Your task to perform on an android device: create a new album in the google photos Image 0: 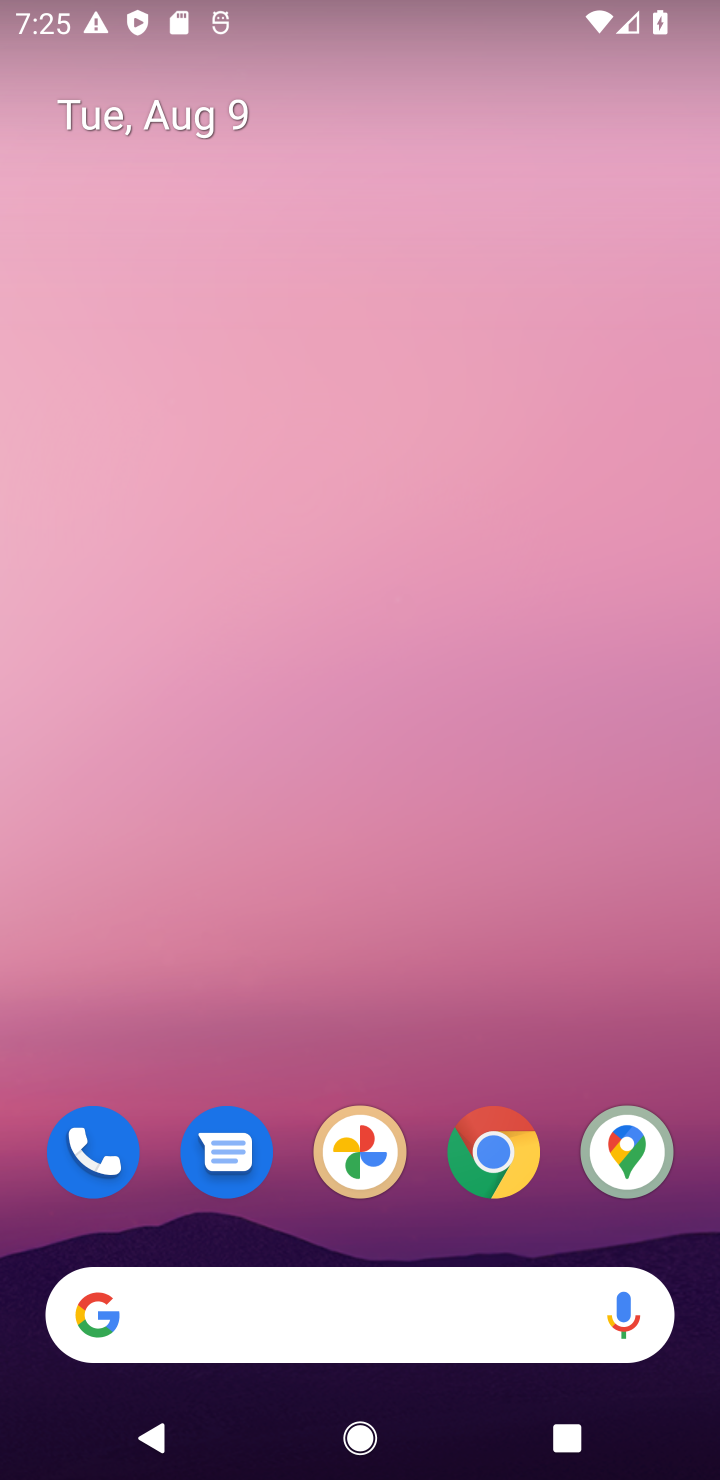
Step 0: click (391, 1178)
Your task to perform on an android device: create a new album in the google photos Image 1: 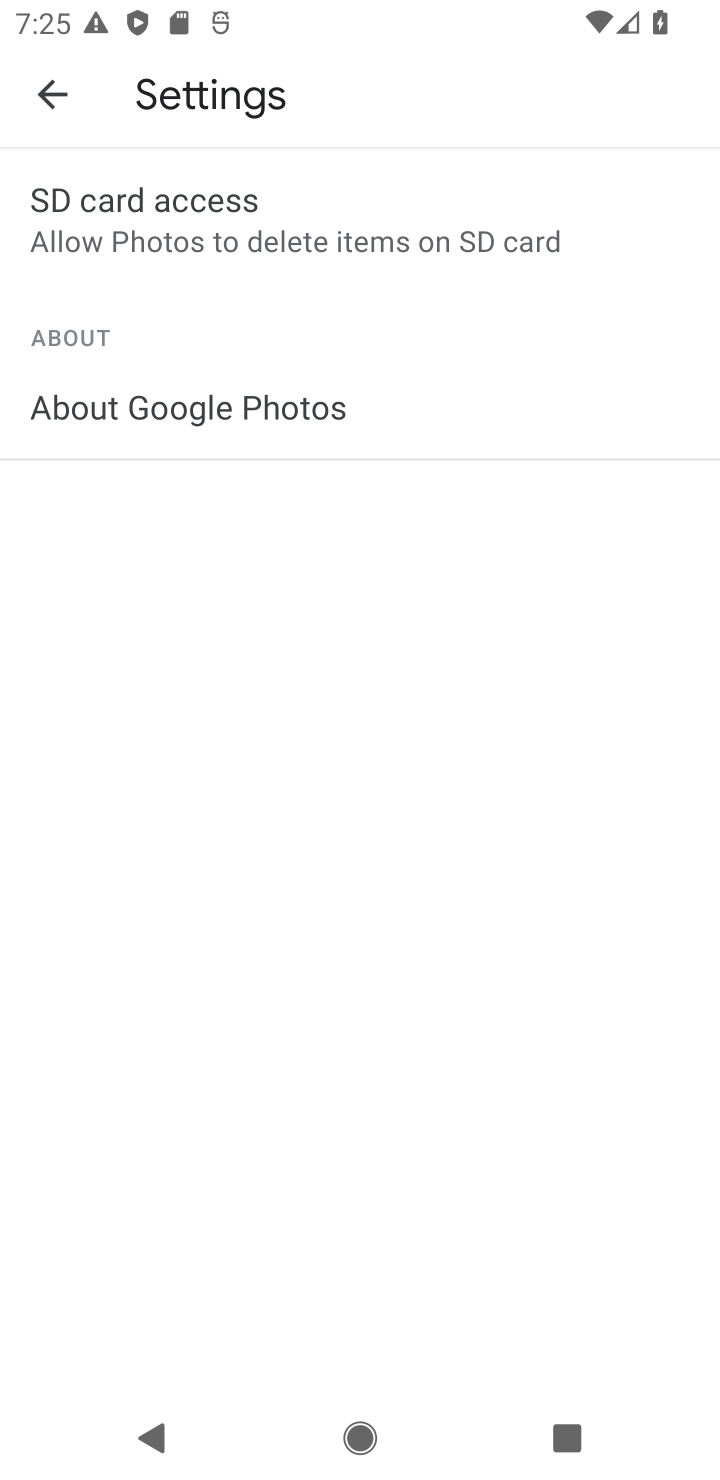
Step 1: click (60, 79)
Your task to perform on an android device: create a new album in the google photos Image 2: 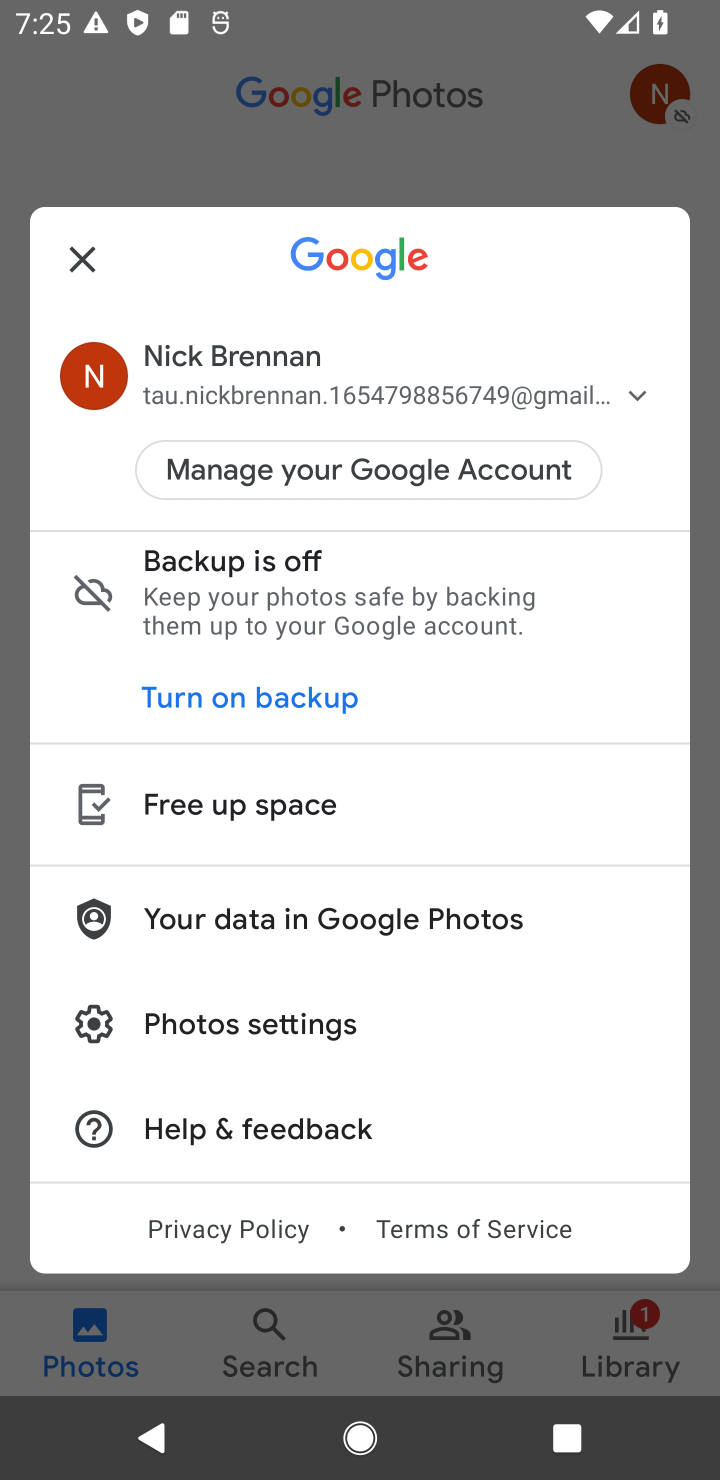
Step 2: click (60, 79)
Your task to perform on an android device: create a new album in the google photos Image 3: 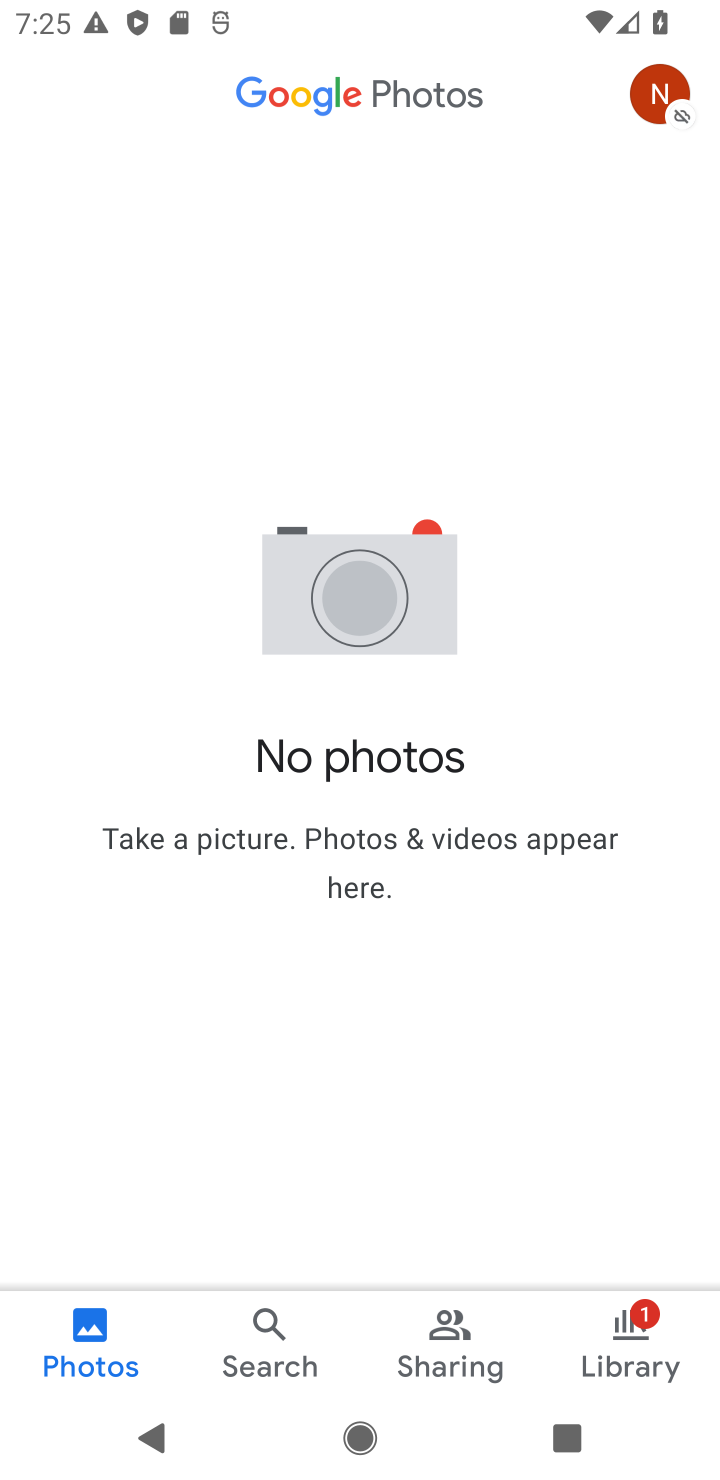
Step 3: click (86, 236)
Your task to perform on an android device: create a new album in the google photos Image 4: 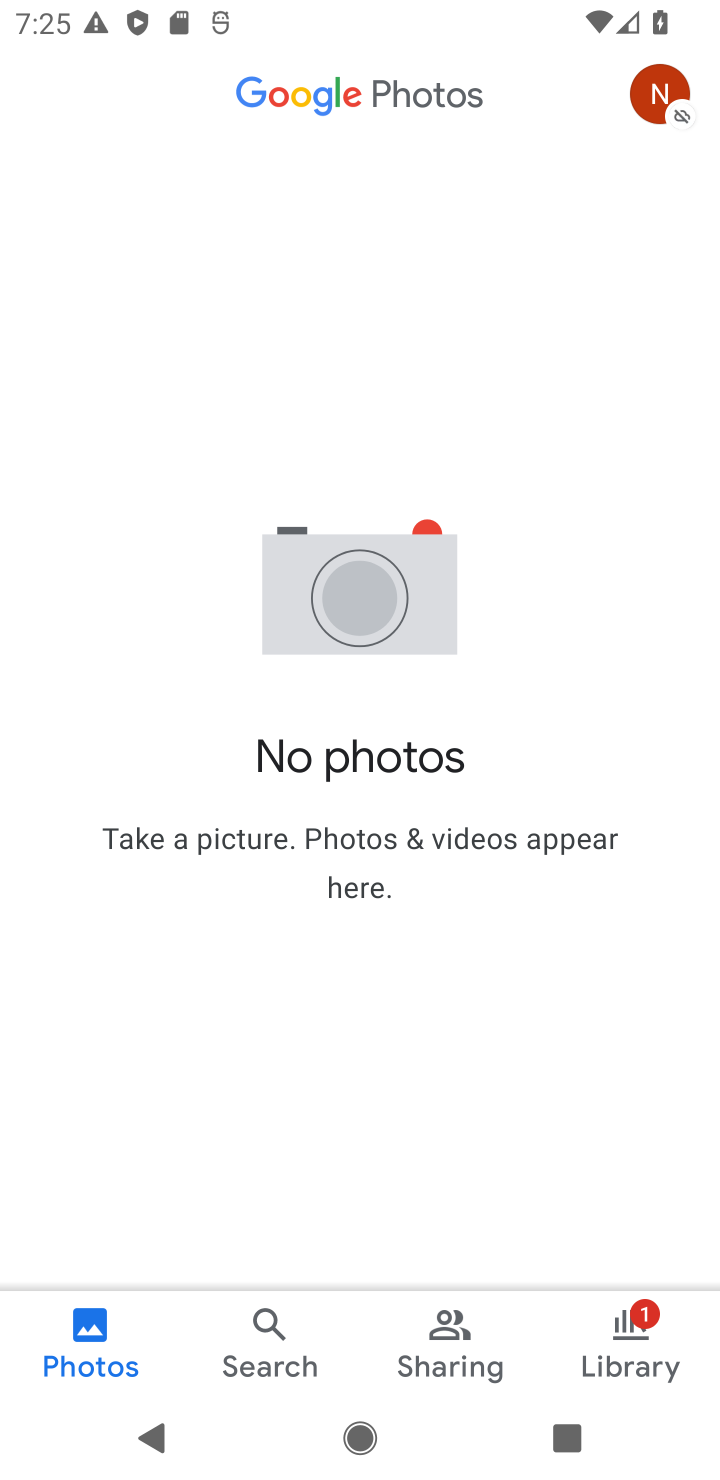
Step 4: task complete